Your task to perform on an android device: Clear the cart on bestbuy. Search for "bose quietcomfort 35" on bestbuy, select the first entry, and add it to the cart. Image 0: 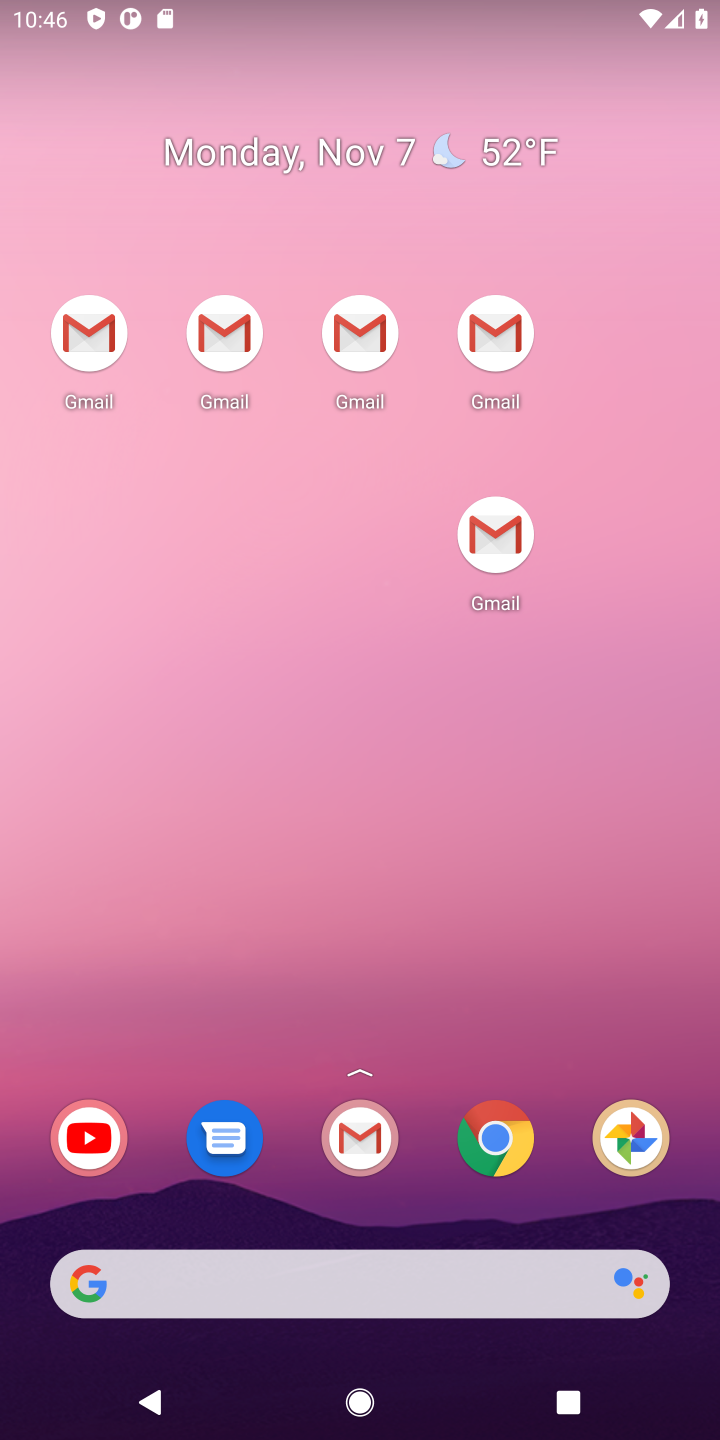
Step 0: drag from (375, 1142) to (662, 16)
Your task to perform on an android device: Clear the cart on bestbuy. Search for "bose quietcomfort 35" on bestbuy, select the first entry, and add it to the cart. Image 1: 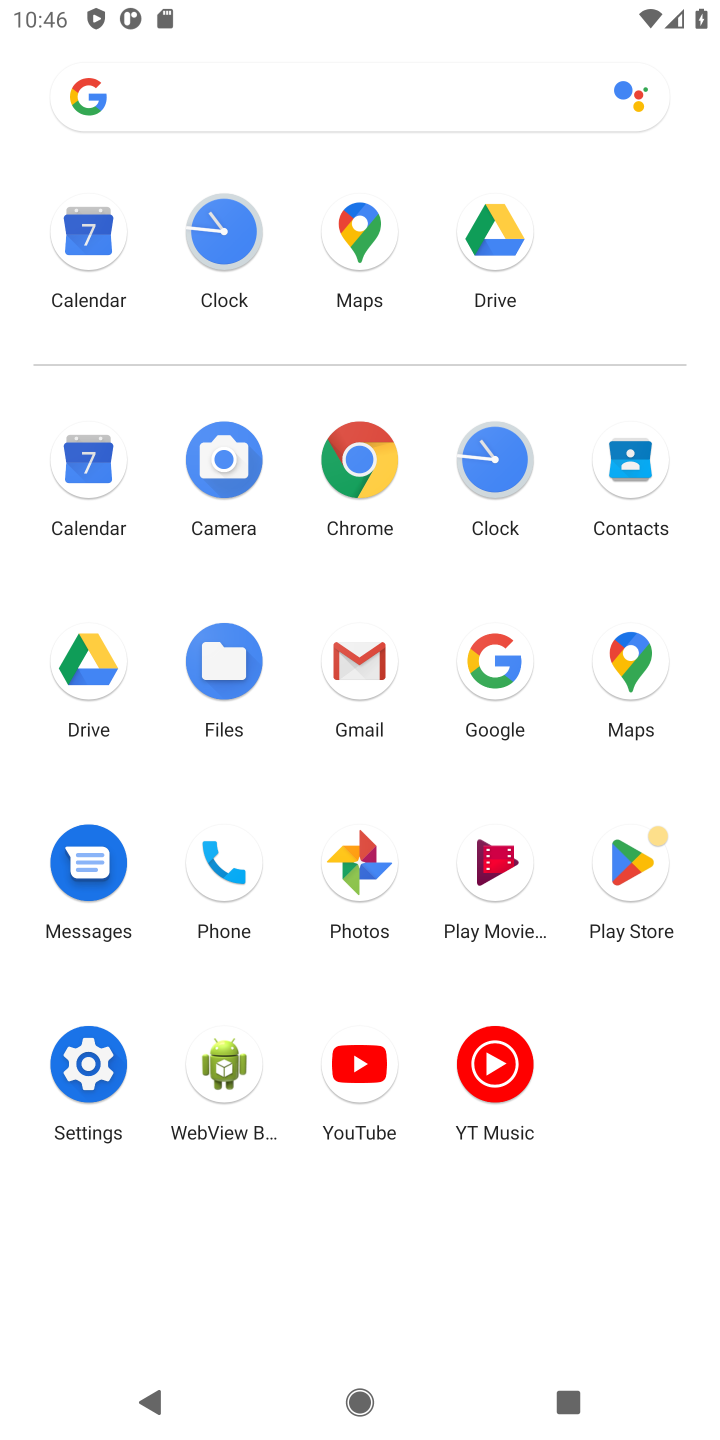
Step 1: click (506, 718)
Your task to perform on an android device: Clear the cart on bestbuy. Search for "bose quietcomfort 35" on bestbuy, select the first entry, and add it to the cart. Image 2: 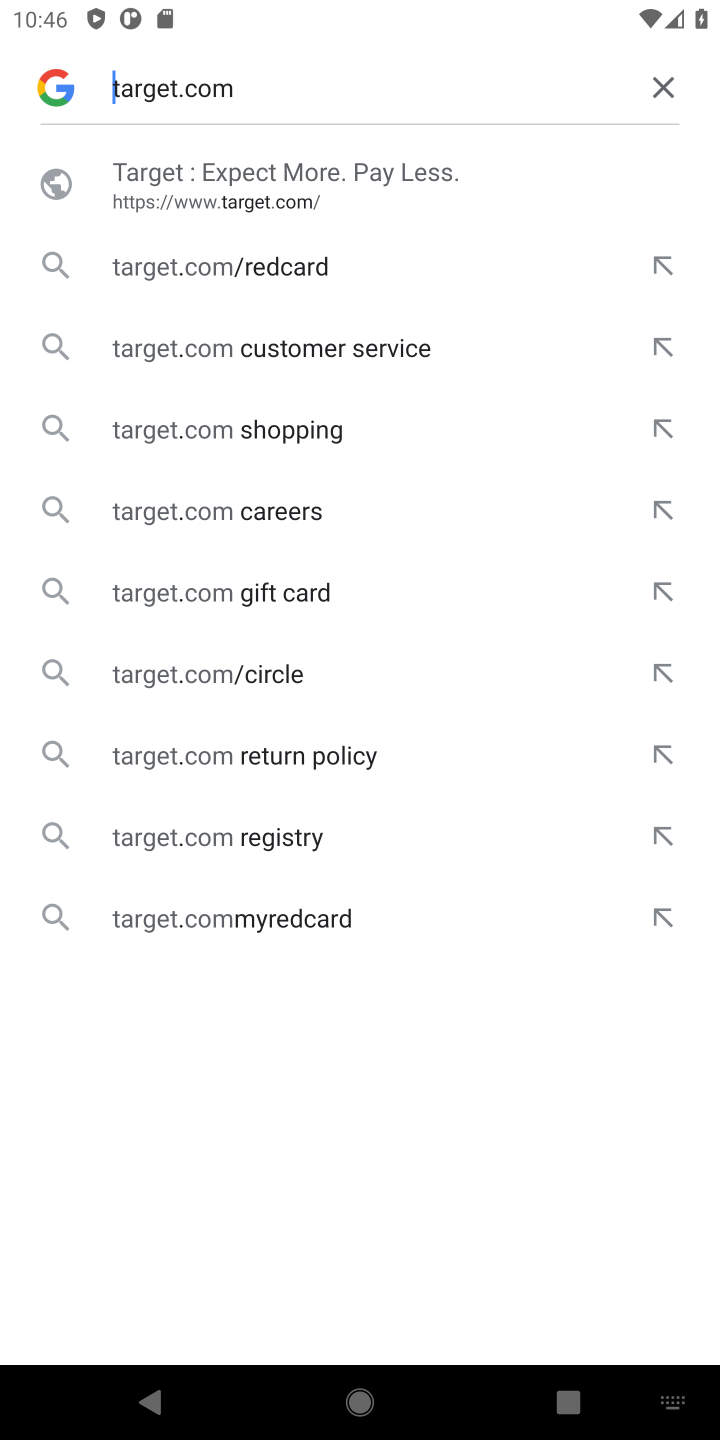
Step 2: click (670, 101)
Your task to perform on an android device: Clear the cart on bestbuy. Search for "bose quietcomfort 35" on bestbuy, select the first entry, and add it to the cart. Image 3: 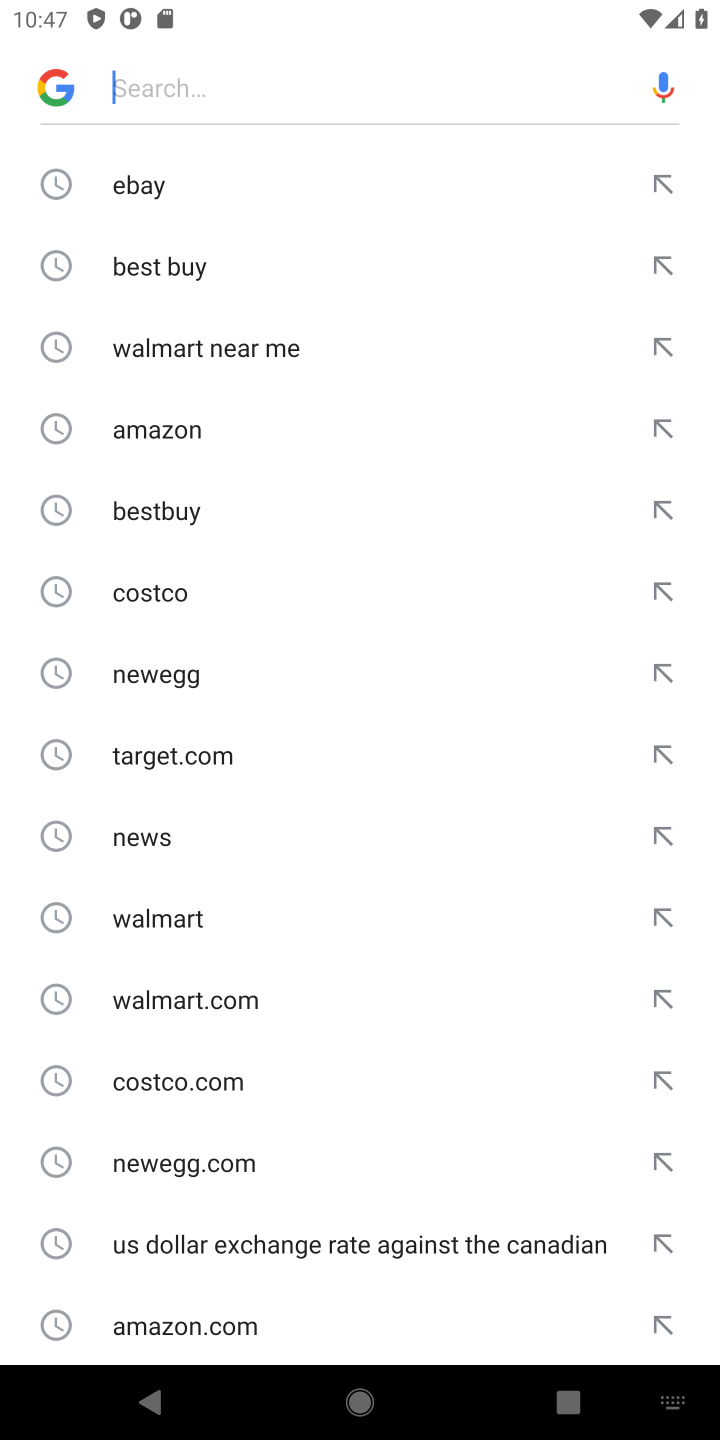
Step 3: type "bestbuy"
Your task to perform on an android device: Clear the cart on bestbuy. Search for "bose quietcomfort 35" on bestbuy, select the first entry, and add it to the cart. Image 4: 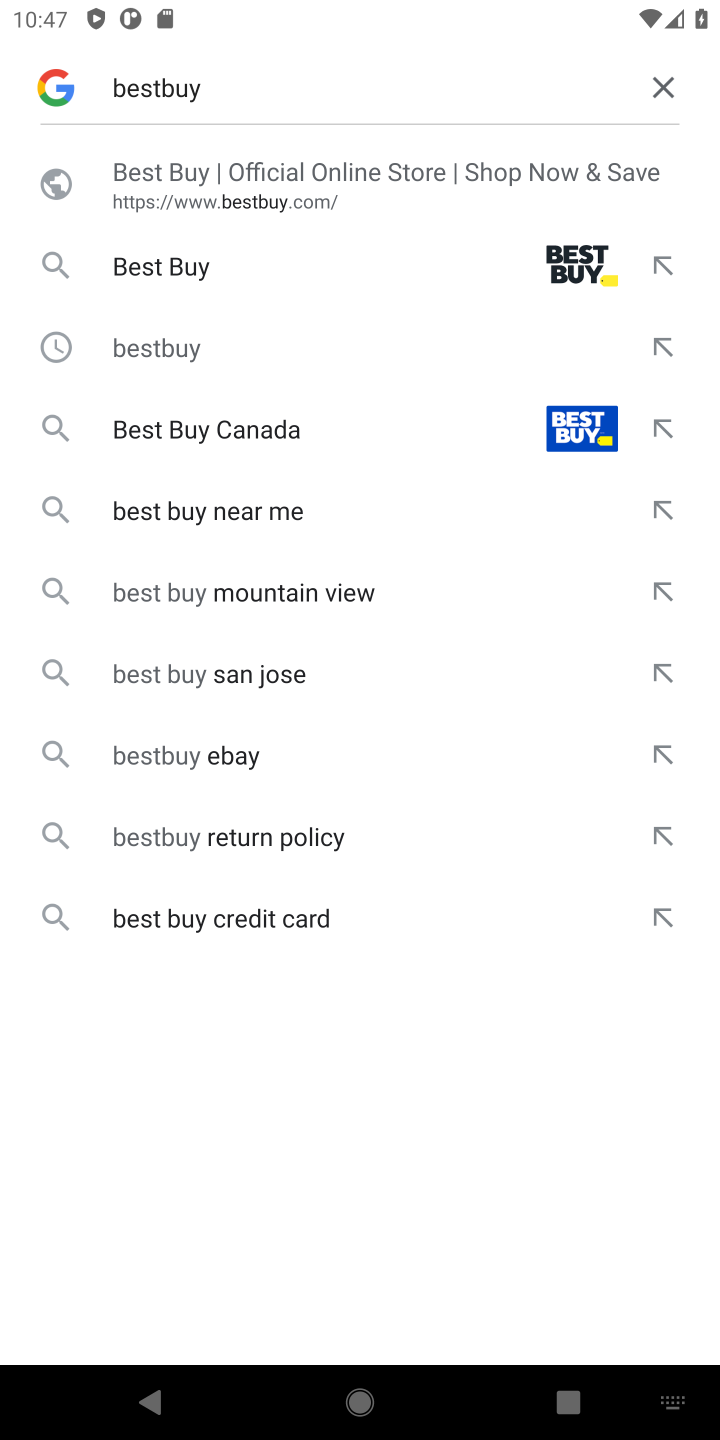
Step 4: click (329, 207)
Your task to perform on an android device: Clear the cart on bestbuy. Search for "bose quietcomfort 35" on bestbuy, select the first entry, and add it to the cart. Image 5: 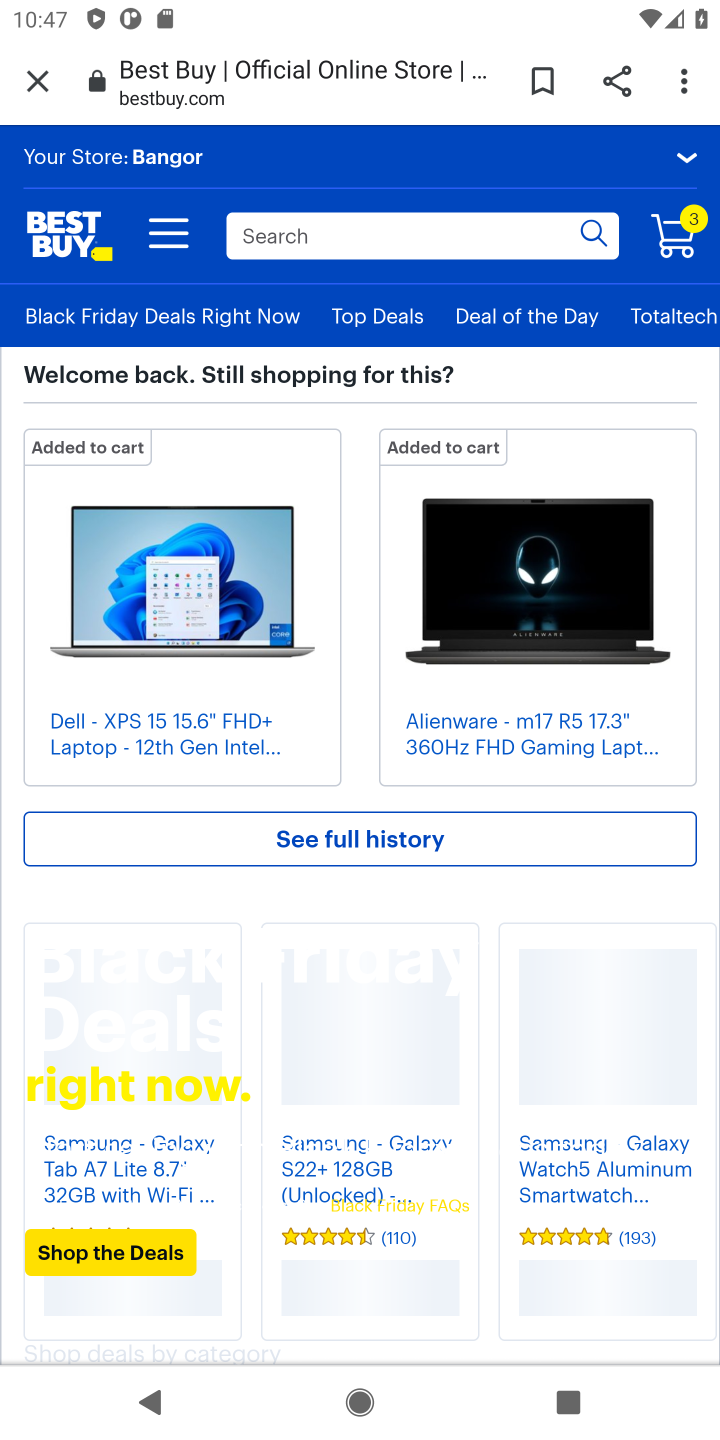
Step 5: click (400, 223)
Your task to perform on an android device: Clear the cart on bestbuy. Search for "bose quietcomfort 35" on bestbuy, select the first entry, and add it to the cart. Image 6: 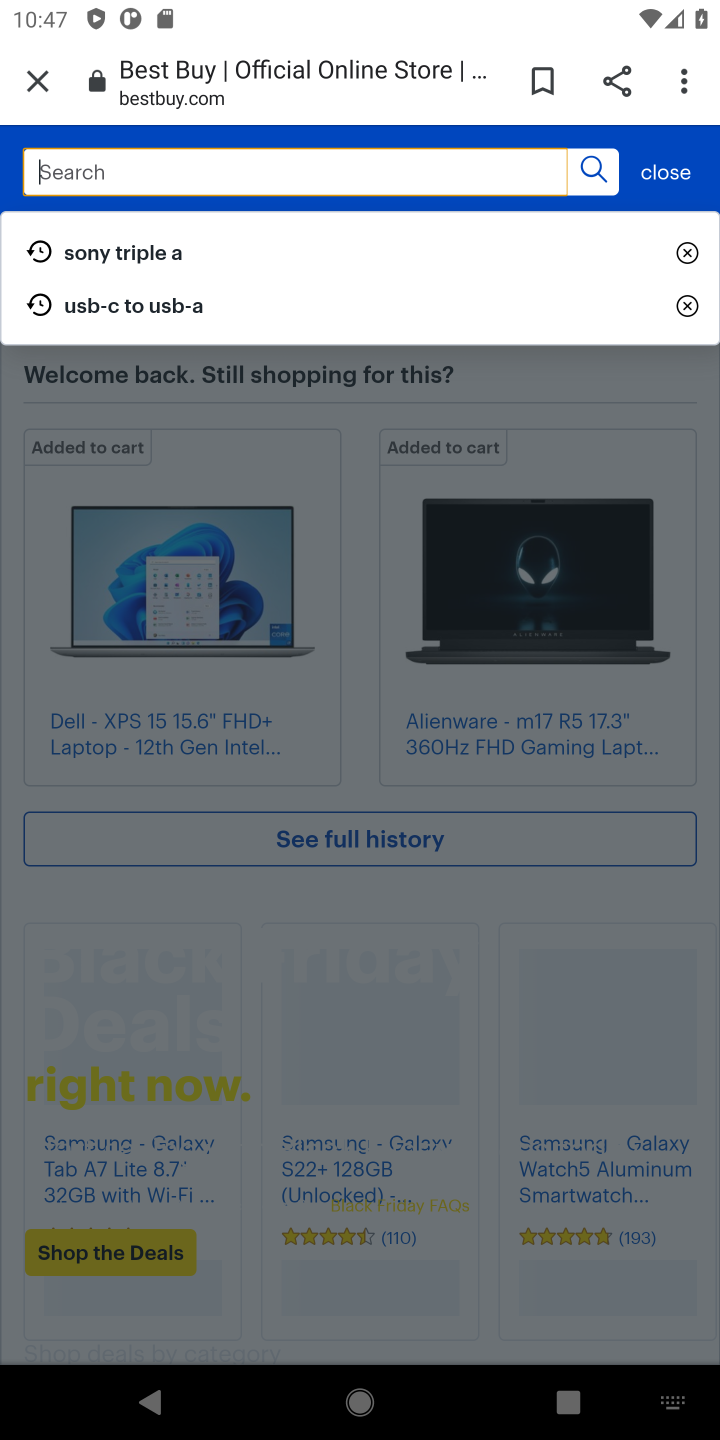
Step 6: type "bose quietcomfort 35"
Your task to perform on an android device: Clear the cart on bestbuy. Search for "bose quietcomfort 35" on bestbuy, select the first entry, and add it to the cart. Image 7: 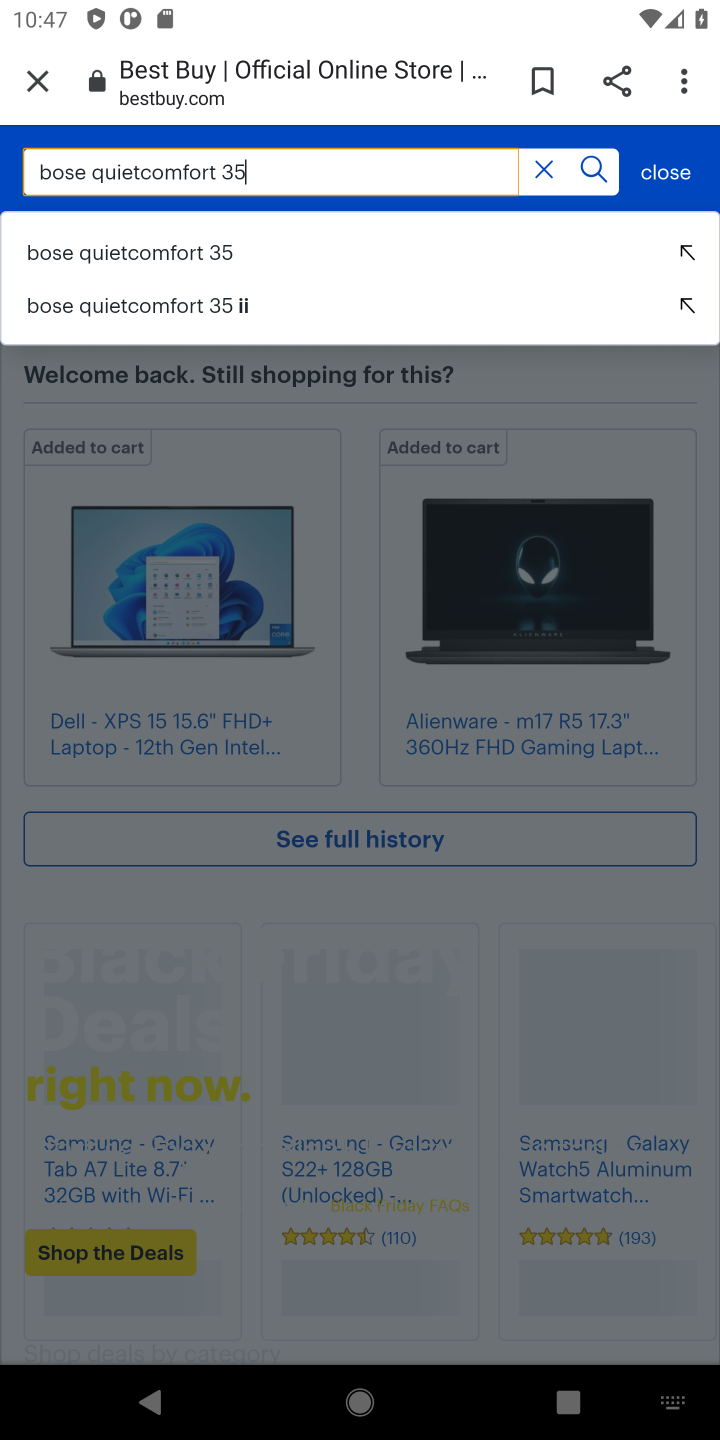
Step 7: click (229, 259)
Your task to perform on an android device: Clear the cart on bestbuy. Search for "bose quietcomfort 35" on bestbuy, select the first entry, and add it to the cart. Image 8: 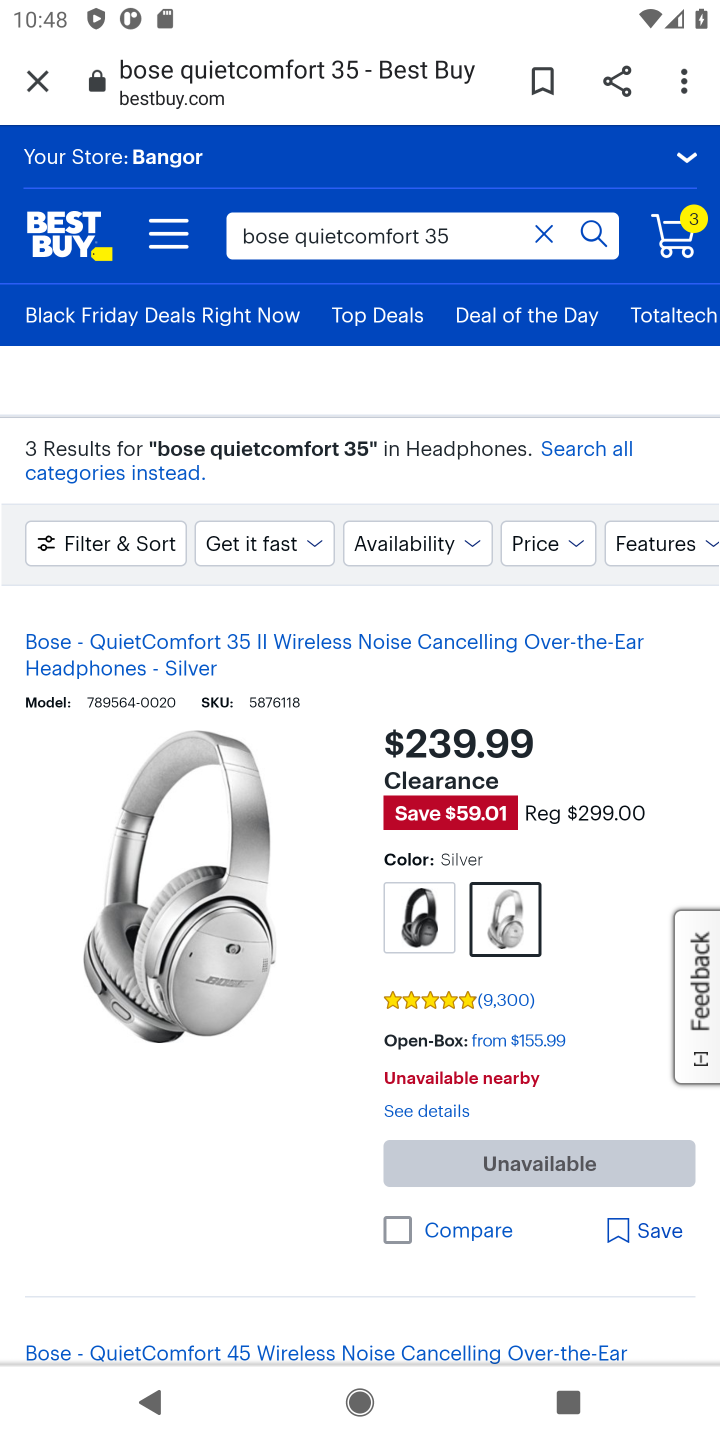
Step 8: task complete